Your task to perform on an android device: Search for the best selling video games at Target Image 0: 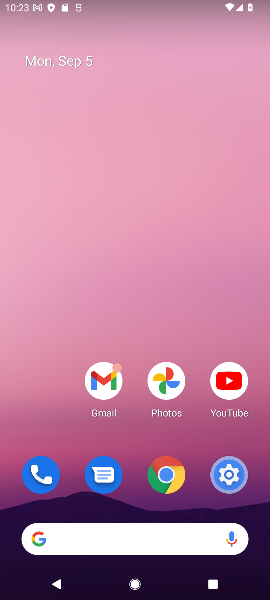
Step 0: click (160, 533)
Your task to perform on an android device: Search for the best selling video games at Target Image 1: 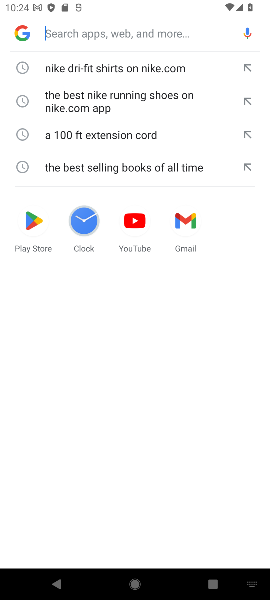
Step 1: drag from (203, 599) to (249, 599)
Your task to perform on an android device: Search for the best selling video games at Target Image 2: 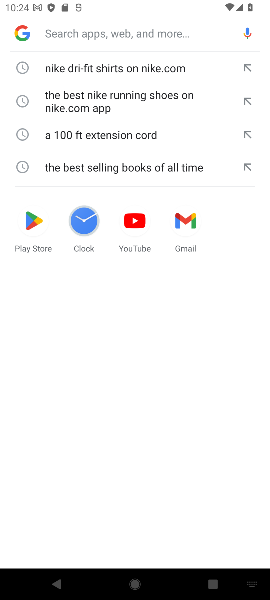
Step 2: type "the best selling video games at Target"
Your task to perform on an android device: Search for the best selling video games at Target Image 3: 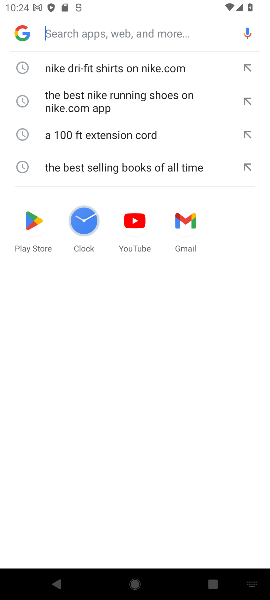
Step 3: drag from (249, 599) to (82, 278)
Your task to perform on an android device: Search for the best selling video games at Target Image 4: 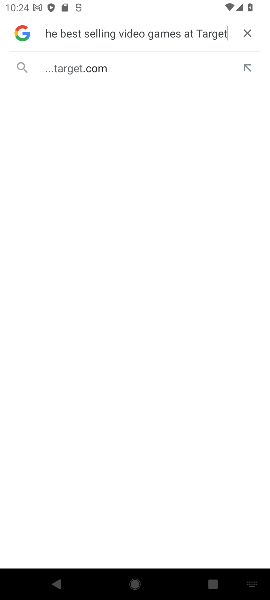
Step 4: click (87, 68)
Your task to perform on an android device: Search for the best selling video games at Target Image 5: 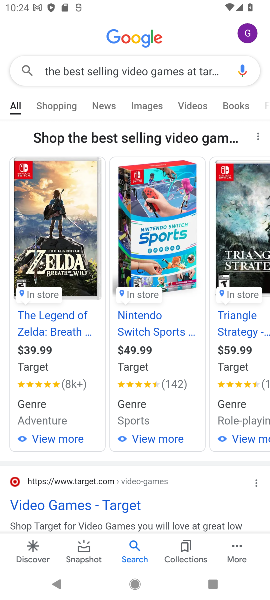
Step 5: click (164, 251)
Your task to perform on an android device: Search for the best selling video games at Target Image 6: 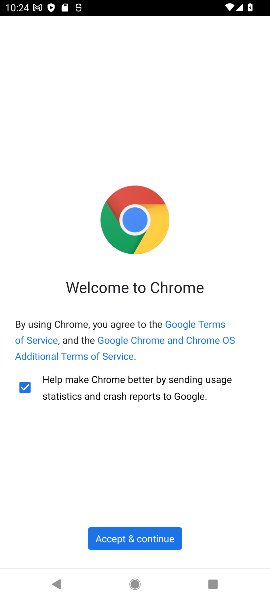
Step 6: task complete